Your task to perform on an android device: change timer sound Image 0: 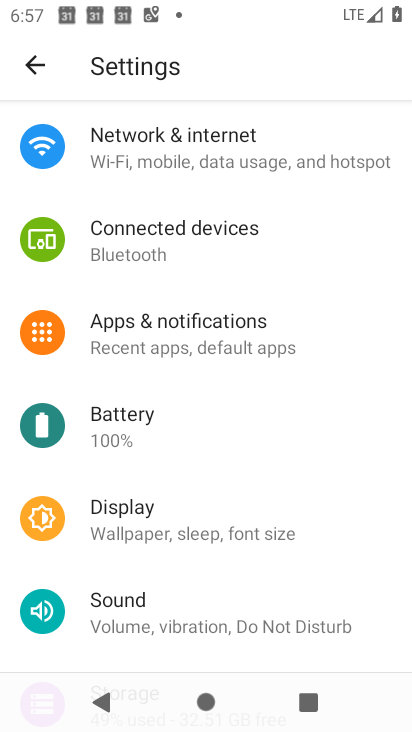
Step 0: press home button
Your task to perform on an android device: change timer sound Image 1: 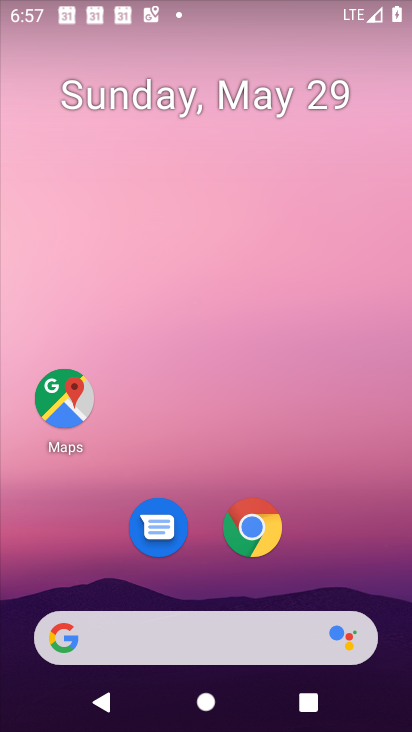
Step 1: drag from (327, 586) to (347, 101)
Your task to perform on an android device: change timer sound Image 2: 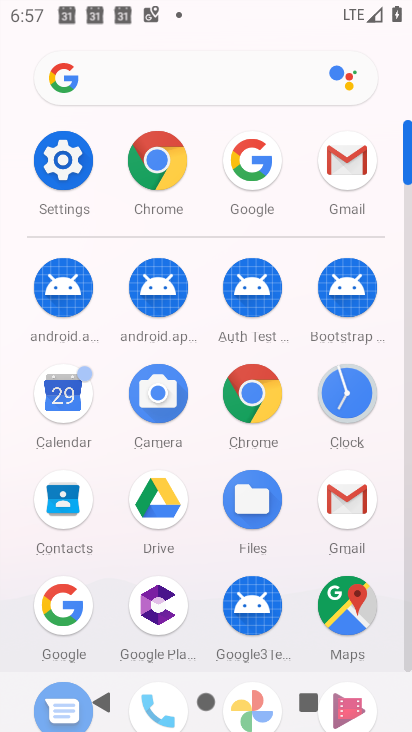
Step 2: click (356, 396)
Your task to perform on an android device: change timer sound Image 3: 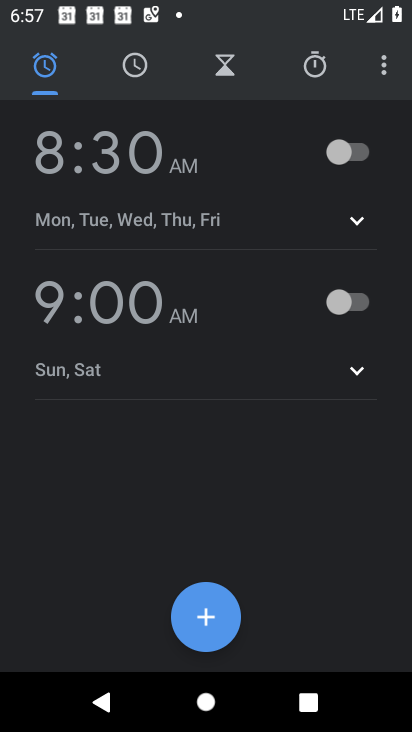
Step 3: click (377, 63)
Your task to perform on an android device: change timer sound Image 4: 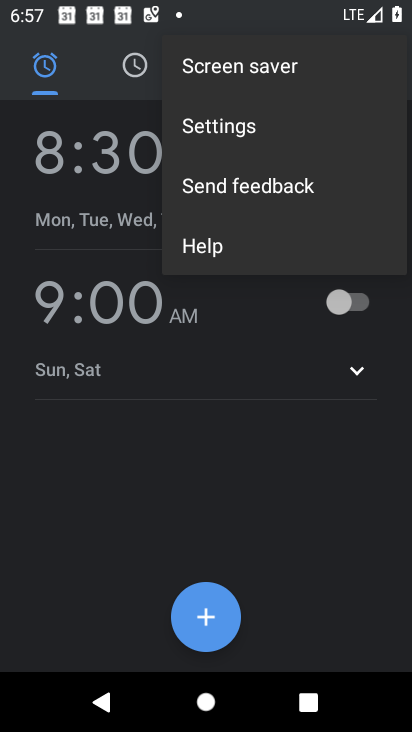
Step 4: click (248, 129)
Your task to perform on an android device: change timer sound Image 5: 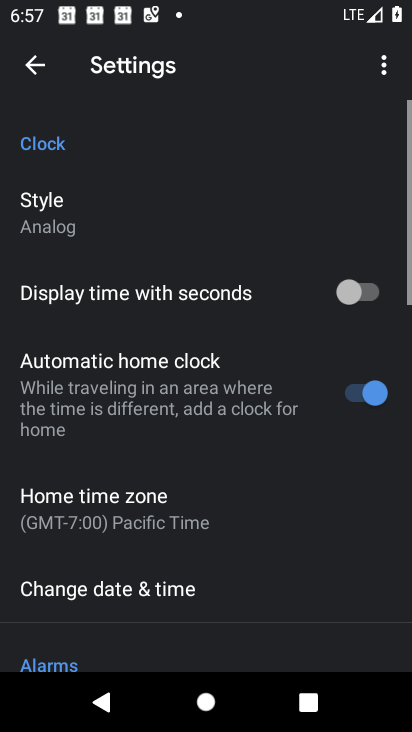
Step 5: drag from (173, 599) to (259, 31)
Your task to perform on an android device: change timer sound Image 6: 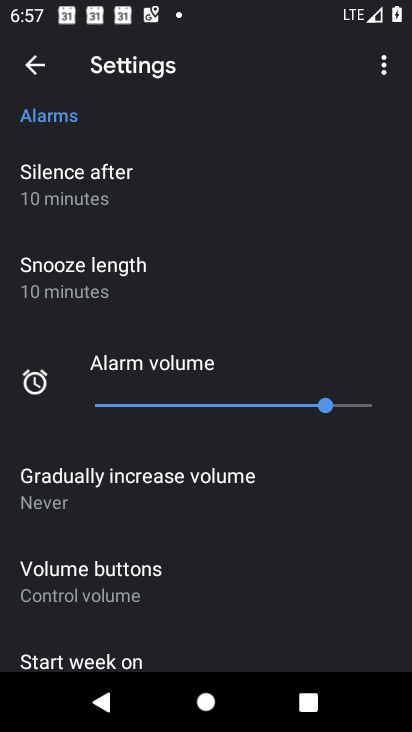
Step 6: drag from (112, 610) to (196, 113)
Your task to perform on an android device: change timer sound Image 7: 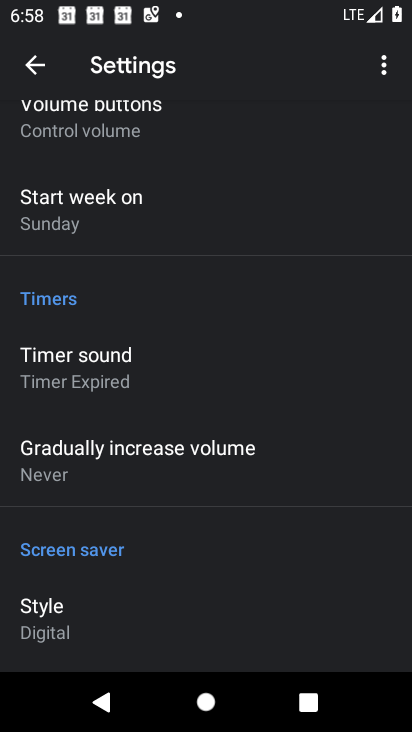
Step 7: click (148, 361)
Your task to perform on an android device: change timer sound Image 8: 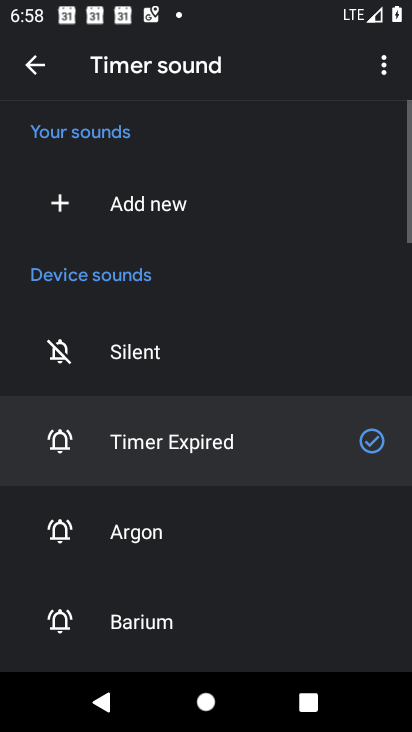
Step 8: click (231, 649)
Your task to perform on an android device: change timer sound Image 9: 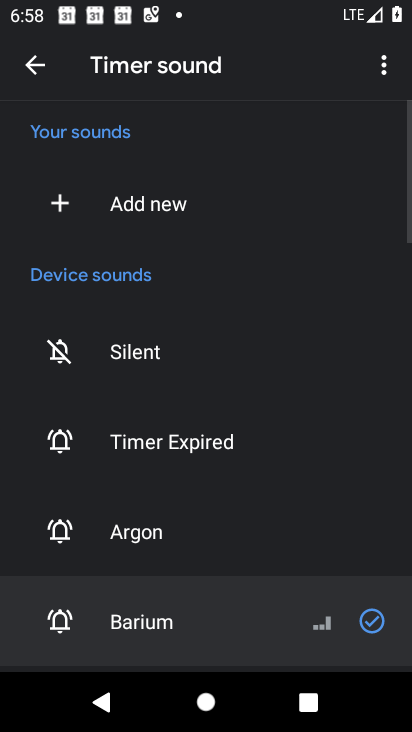
Step 9: task complete